Your task to perform on an android device: Open the map Image 0: 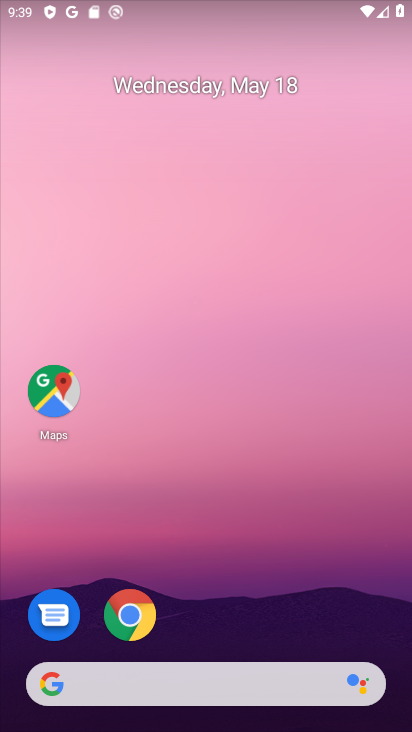
Step 0: drag from (300, 634) to (303, 170)
Your task to perform on an android device: Open the map Image 1: 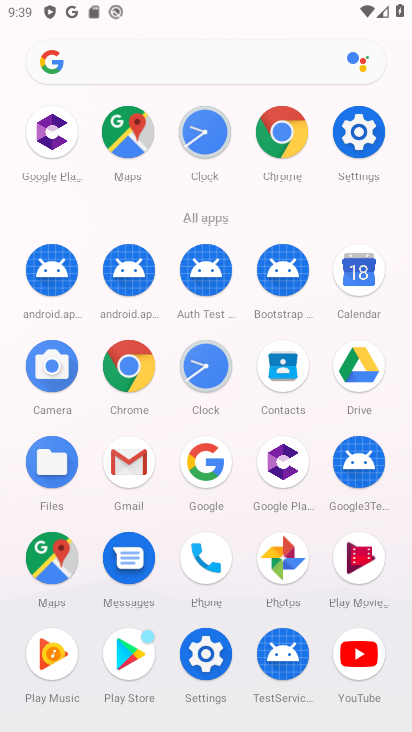
Step 1: click (129, 136)
Your task to perform on an android device: Open the map Image 2: 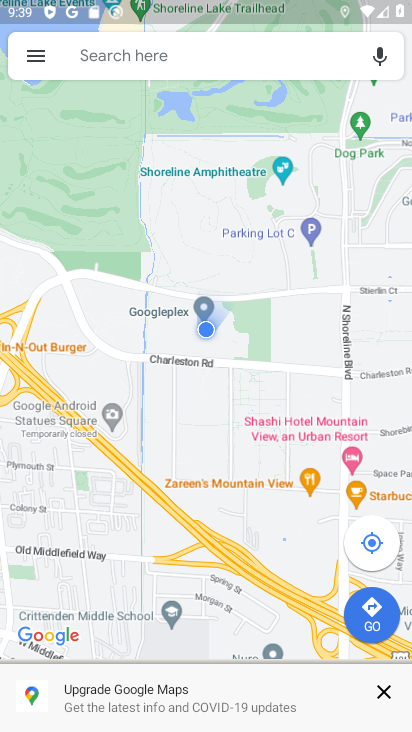
Step 2: task complete